Your task to perform on an android device: Open the calendar and show me this week's events Image 0: 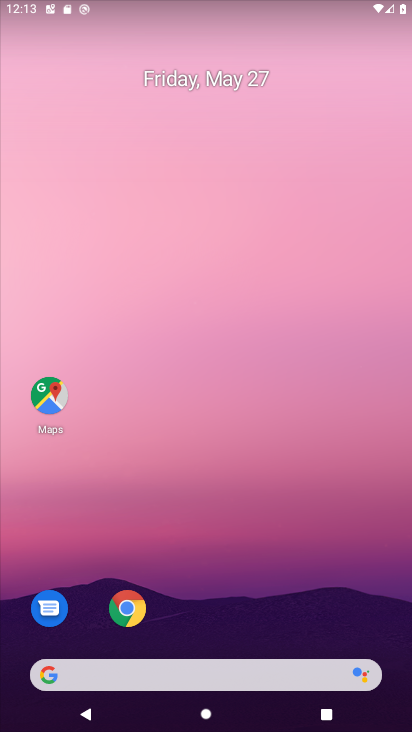
Step 0: drag from (390, 640) to (315, 81)
Your task to perform on an android device: Open the calendar and show me this week's events Image 1: 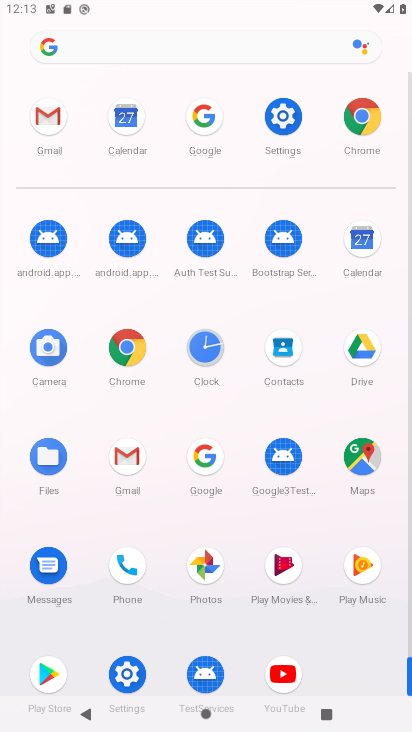
Step 1: click (364, 247)
Your task to perform on an android device: Open the calendar and show me this week's events Image 2: 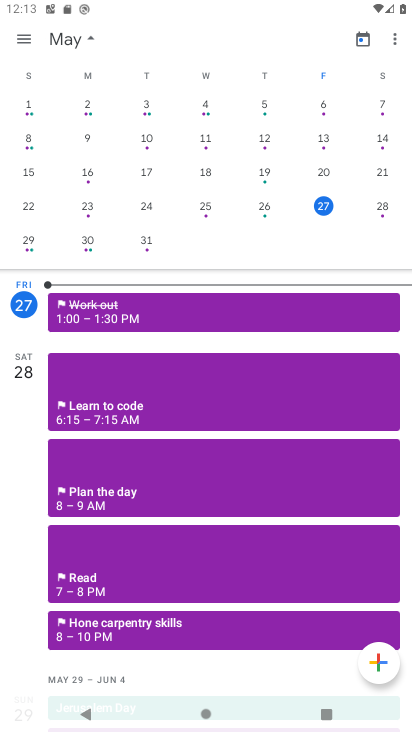
Step 2: click (20, 43)
Your task to perform on an android device: Open the calendar and show me this week's events Image 3: 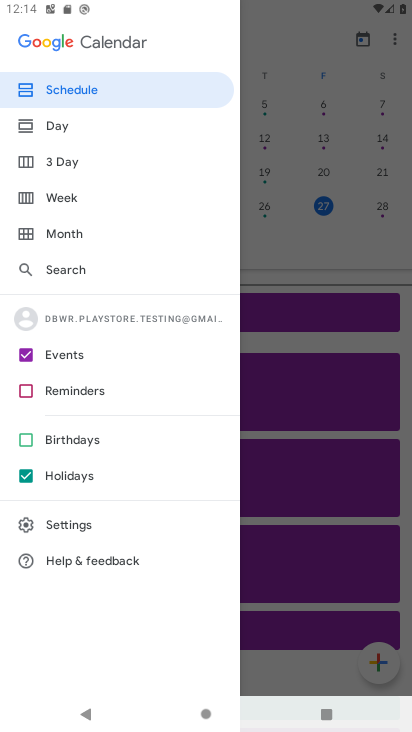
Step 3: click (39, 191)
Your task to perform on an android device: Open the calendar and show me this week's events Image 4: 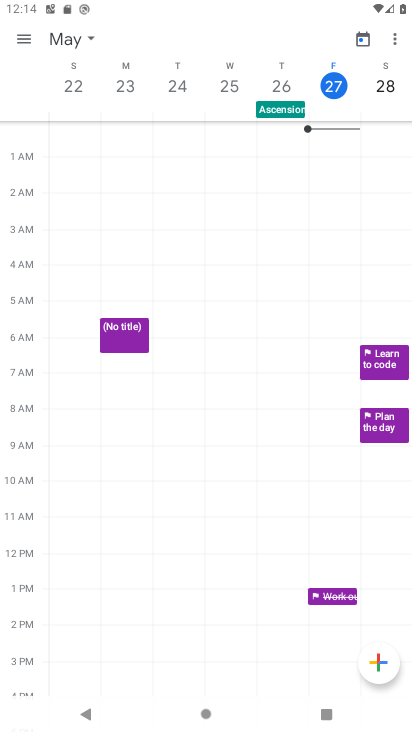
Step 4: click (22, 31)
Your task to perform on an android device: Open the calendar and show me this week's events Image 5: 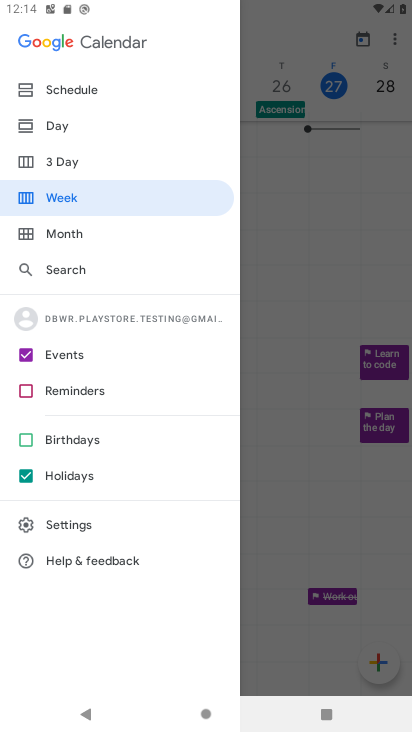
Step 5: click (74, 81)
Your task to perform on an android device: Open the calendar and show me this week's events Image 6: 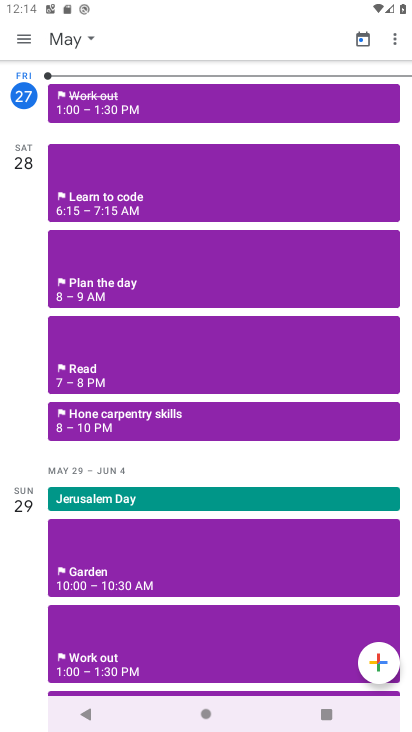
Step 6: task complete